Your task to perform on an android device: snooze an email in the gmail app Image 0: 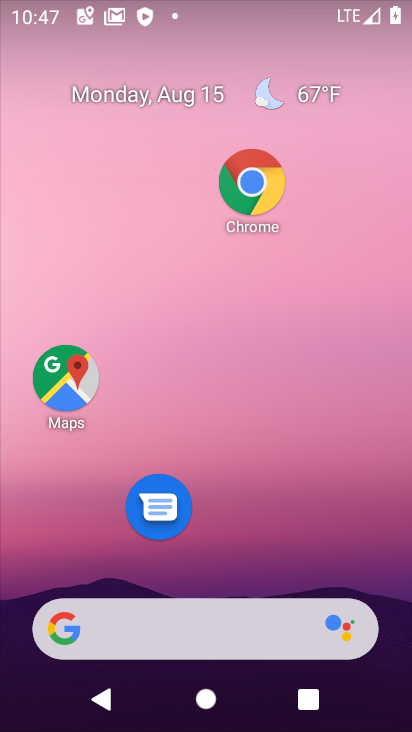
Step 0: drag from (272, 581) to (174, 0)
Your task to perform on an android device: snooze an email in the gmail app Image 1: 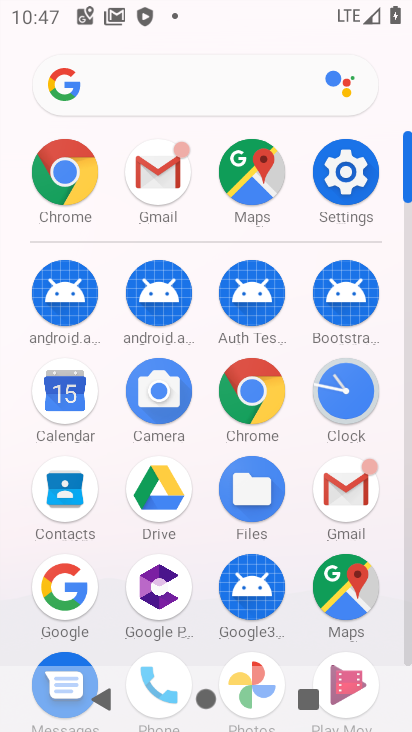
Step 1: click (136, 178)
Your task to perform on an android device: snooze an email in the gmail app Image 2: 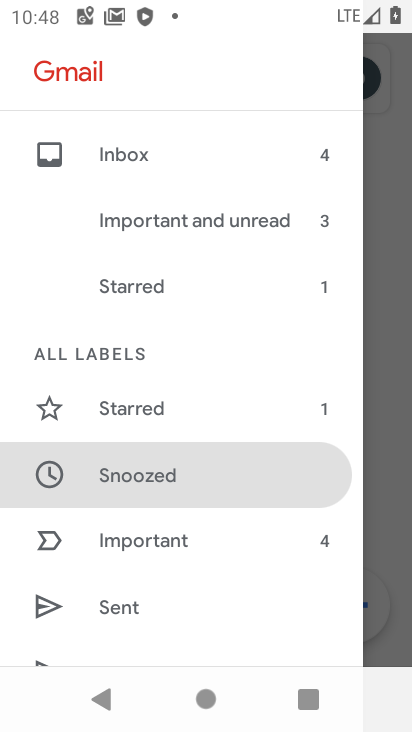
Step 2: task complete